Your task to perform on an android device: Is it going to rain this weekend? Image 0: 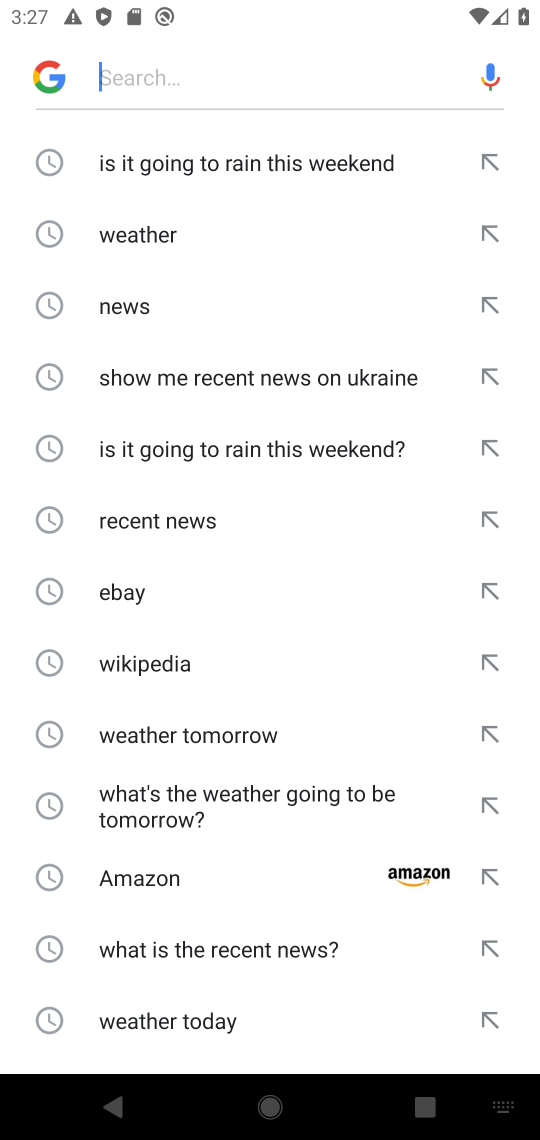
Step 0: click (156, 247)
Your task to perform on an android device: Is it going to rain this weekend? Image 1: 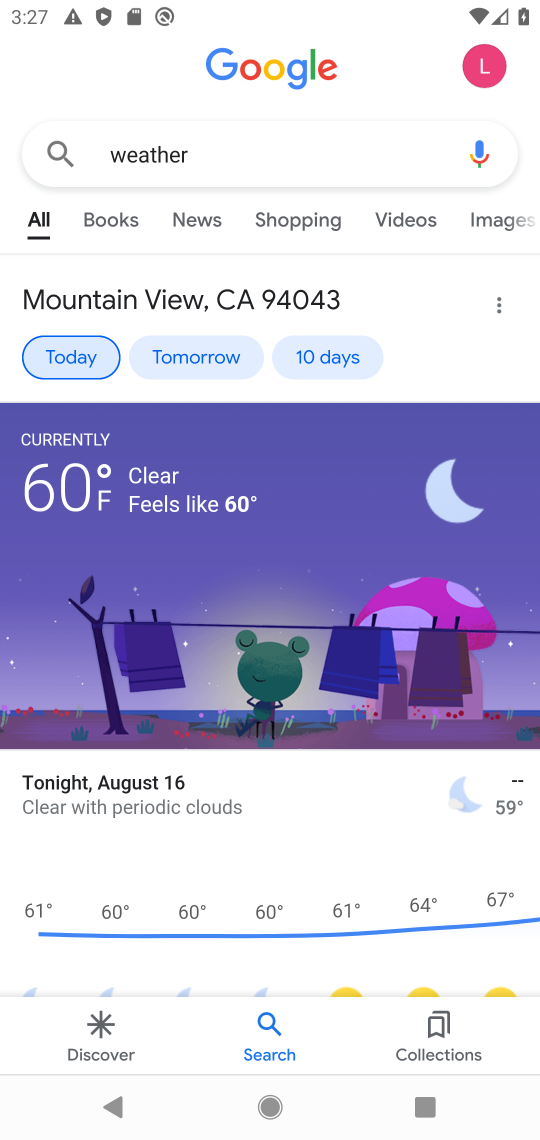
Step 1: click (315, 355)
Your task to perform on an android device: Is it going to rain this weekend? Image 2: 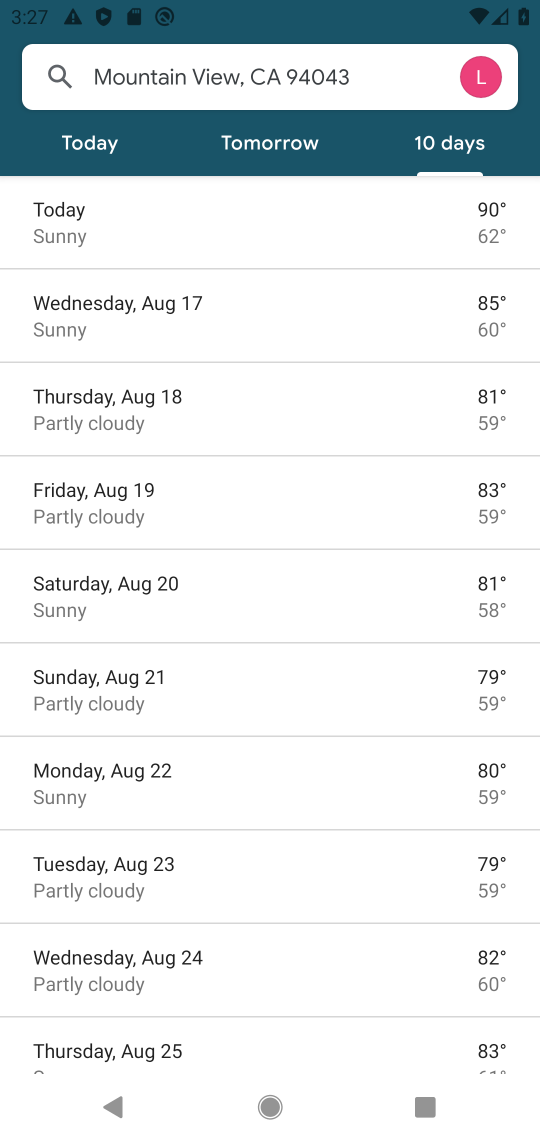
Step 2: task complete